Your task to perform on an android device: toggle notification dots Image 0: 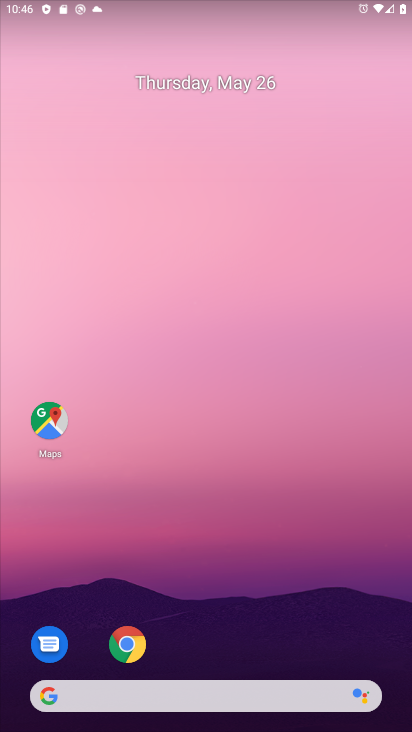
Step 0: drag from (185, 647) to (192, 167)
Your task to perform on an android device: toggle notification dots Image 1: 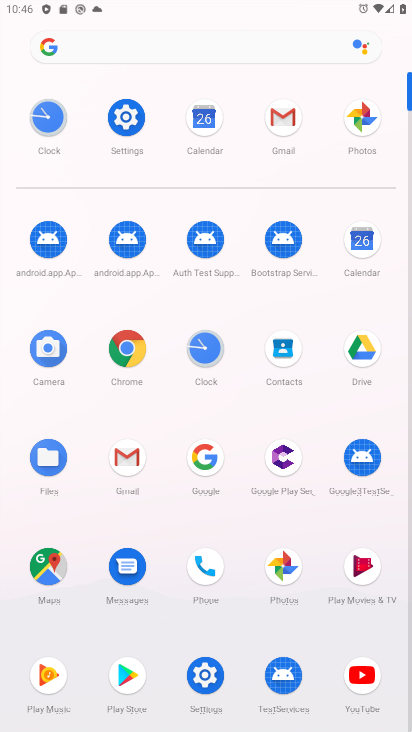
Step 1: click (122, 137)
Your task to perform on an android device: toggle notification dots Image 2: 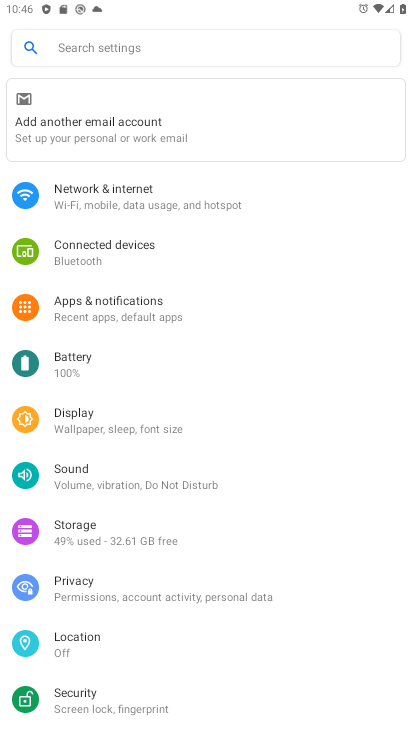
Step 2: click (142, 295)
Your task to perform on an android device: toggle notification dots Image 3: 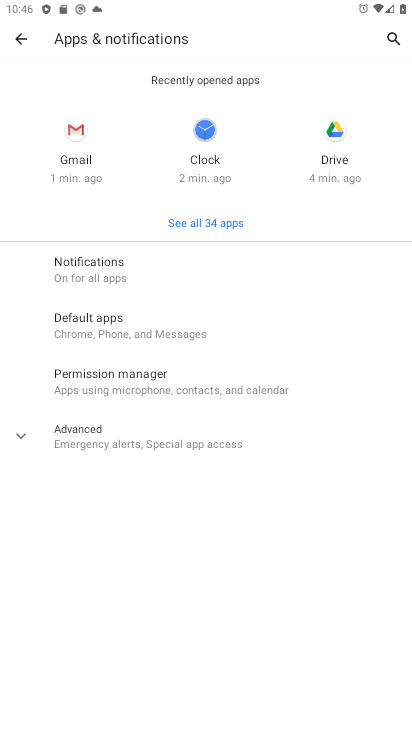
Step 3: click (148, 263)
Your task to perform on an android device: toggle notification dots Image 4: 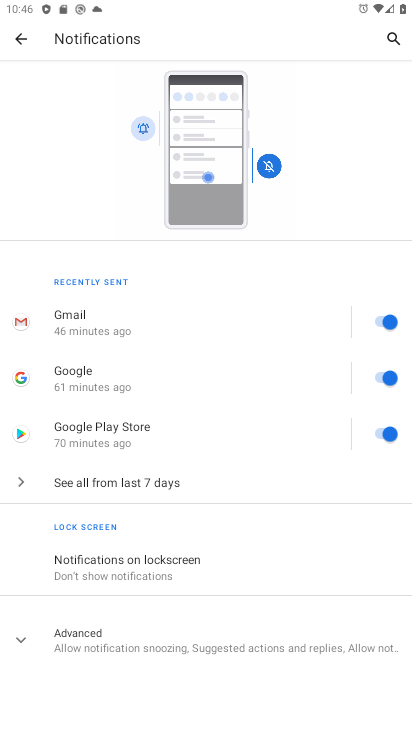
Step 4: drag from (242, 624) to (250, 257)
Your task to perform on an android device: toggle notification dots Image 5: 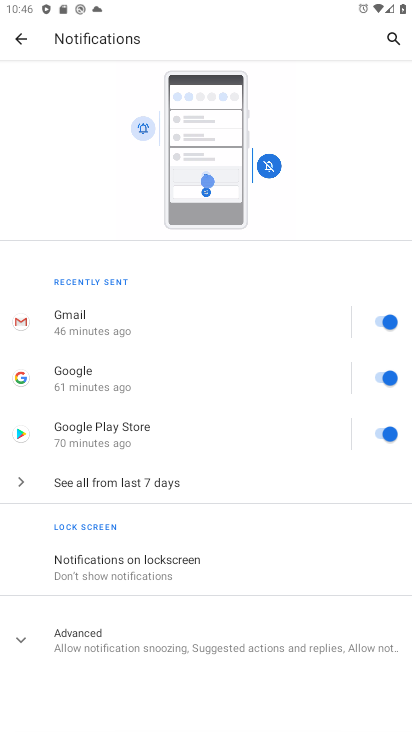
Step 5: click (264, 659)
Your task to perform on an android device: toggle notification dots Image 6: 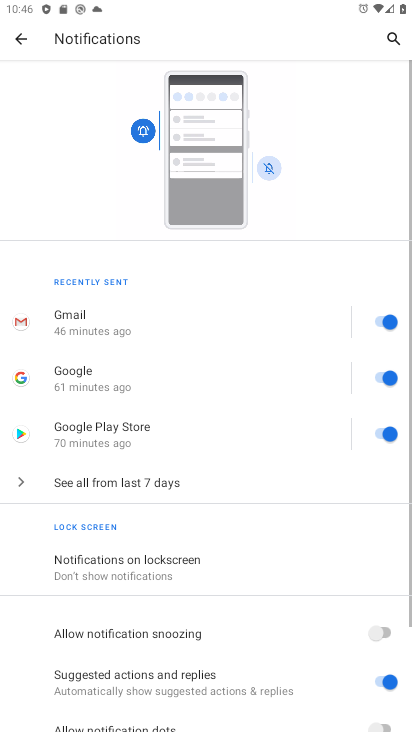
Step 6: drag from (263, 646) to (279, 318)
Your task to perform on an android device: toggle notification dots Image 7: 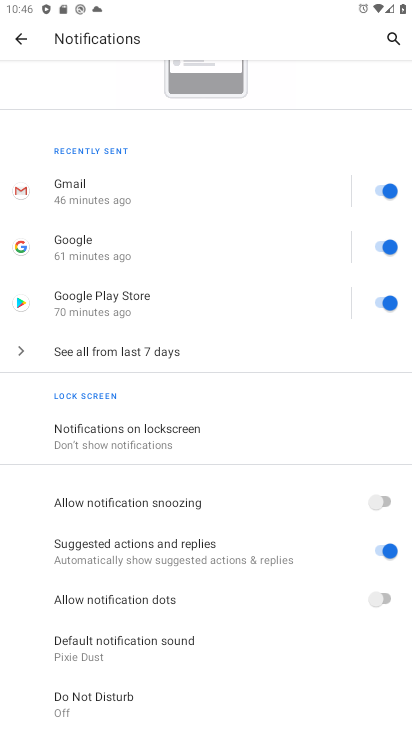
Step 7: click (387, 589)
Your task to perform on an android device: toggle notification dots Image 8: 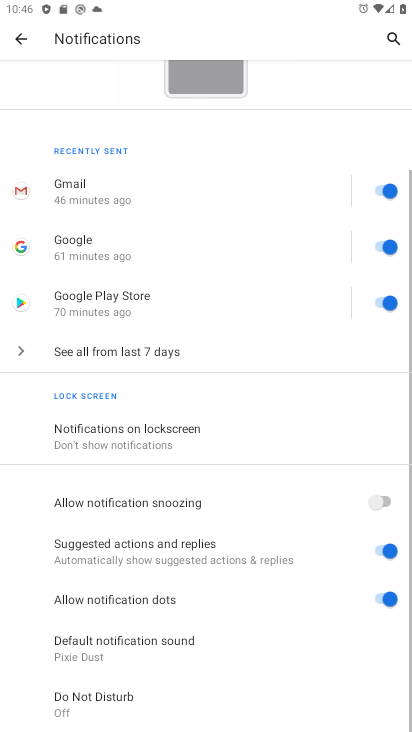
Step 8: task complete